Your task to perform on an android device: turn on showing notifications on the lock screen Image 0: 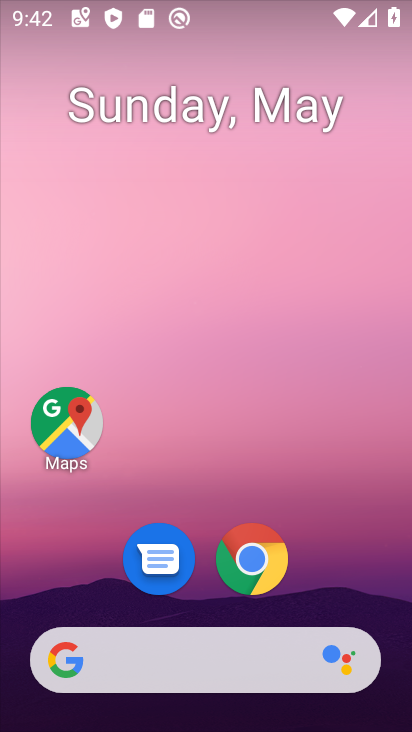
Step 0: drag from (342, 595) to (287, 259)
Your task to perform on an android device: turn on showing notifications on the lock screen Image 1: 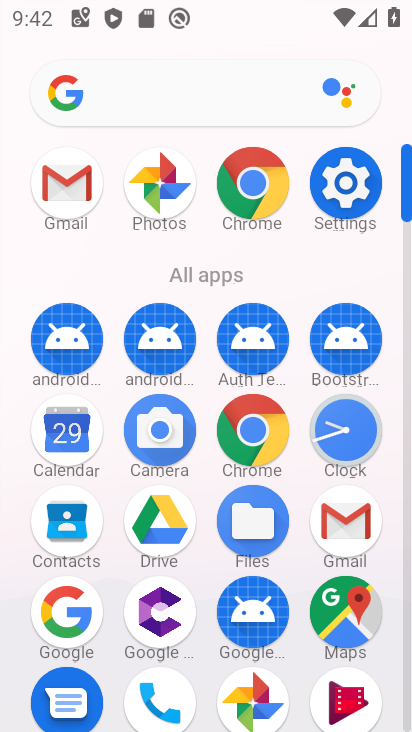
Step 1: click (332, 199)
Your task to perform on an android device: turn on showing notifications on the lock screen Image 2: 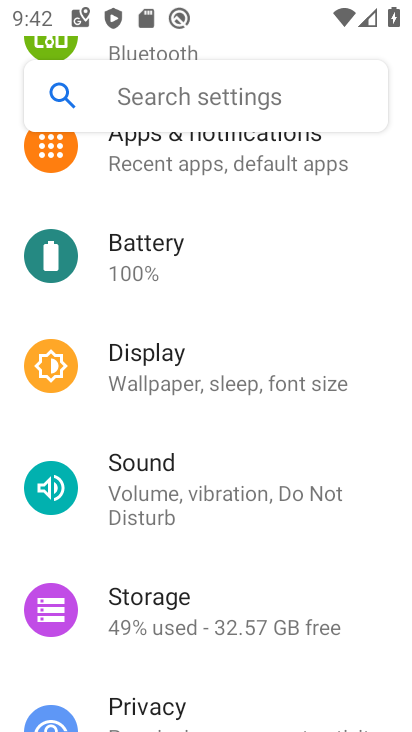
Step 2: press home button
Your task to perform on an android device: turn on showing notifications on the lock screen Image 3: 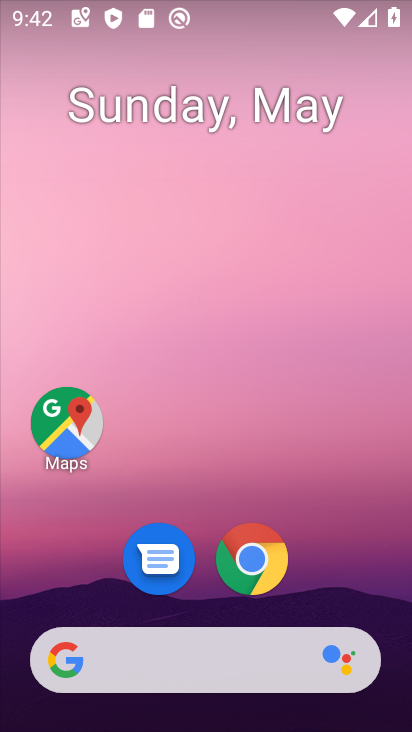
Step 3: drag from (356, 560) to (348, 236)
Your task to perform on an android device: turn on showing notifications on the lock screen Image 4: 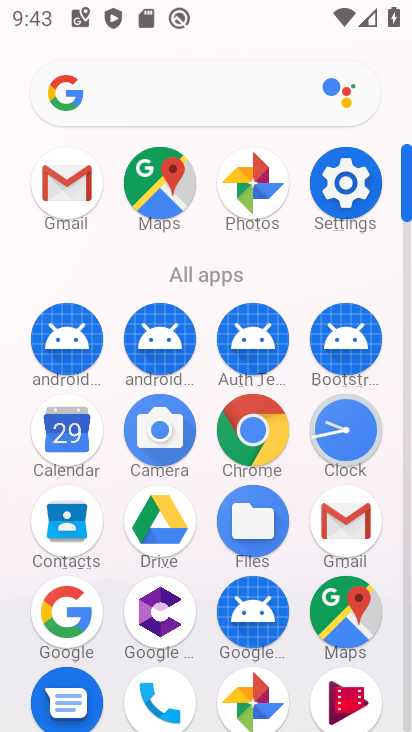
Step 4: click (352, 200)
Your task to perform on an android device: turn on showing notifications on the lock screen Image 5: 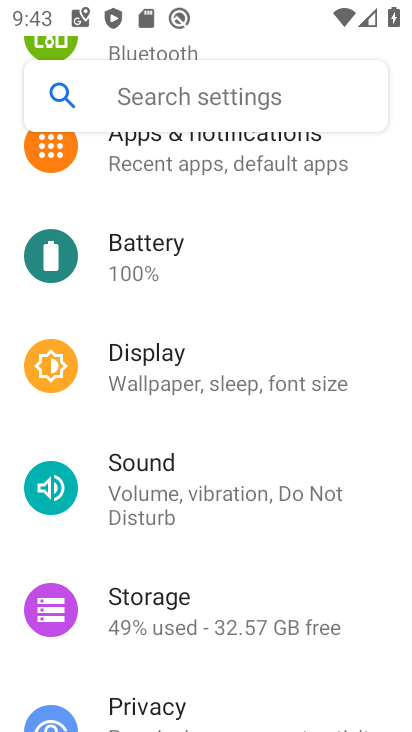
Step 5: click (216, 187)
Your task to perform on an android device: turn on showing notifications on the lock screen Image 6: 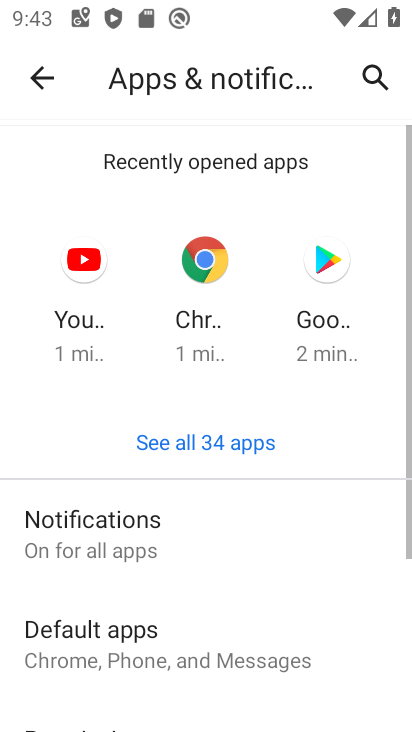
Step 6: drag from (324, 681) to (294, 264)
Your task to perform on an android device: turn on showing notifications on the lock screen Image 7: 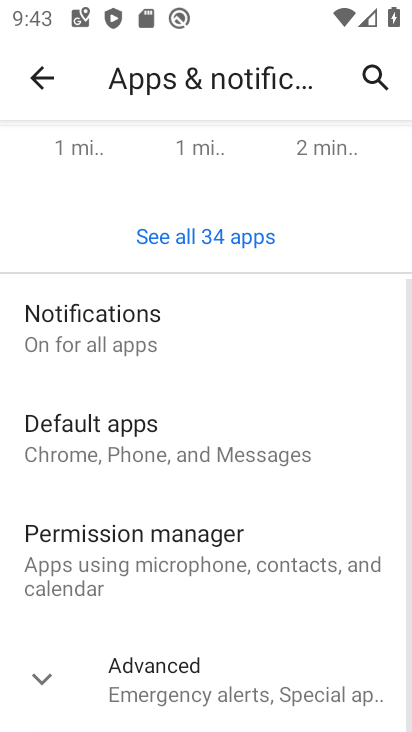
Step 7: click (235, 305)
Your task to perform on an android device: turn on showing notifications on the lock screen Image 8: 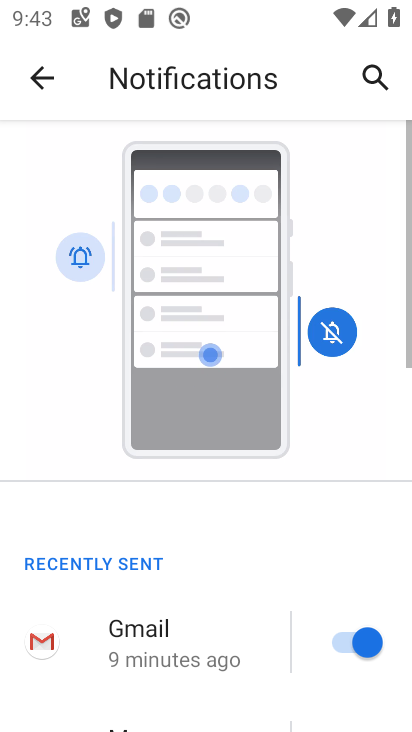
Step 8: drag from (323, 680) to (269, 165)
Your task to perform on an android device: turn on showing notifications on the lock screen Image 9: 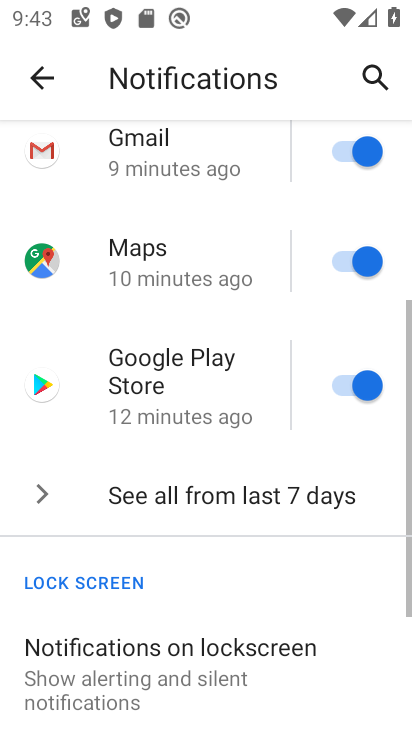
Step 9: click (133, 644)
Your task to perform on an android device: turn on showing notifications on the lock screen Image 10: 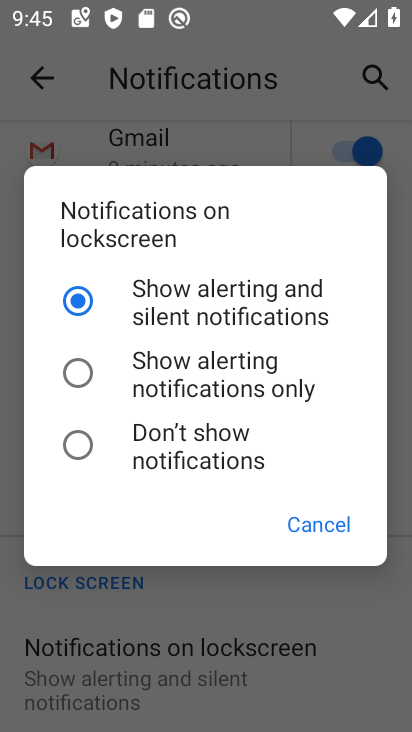
Step 10: click (61, 385)
Your task to perform on an android device: turn on showing notifications on the lock screen Image 11: 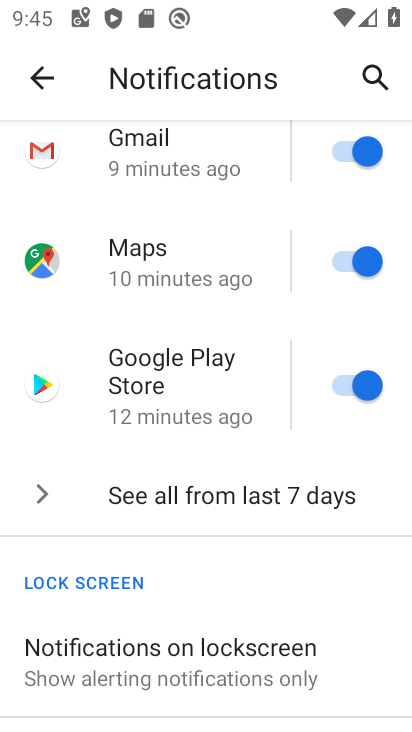
Step 11: task complete